Your task to perform on an android device: open device folders in google photos Image 0: 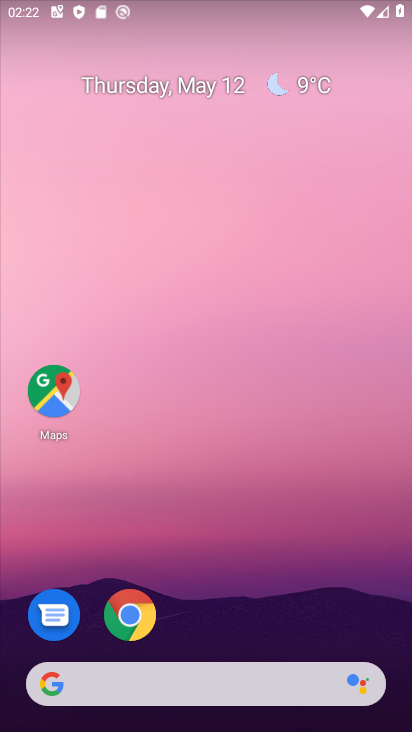
Step 0: drag from (194, 676) to (153, 77)
Your task to perform on an android device: open device folders in google photos Image 1: 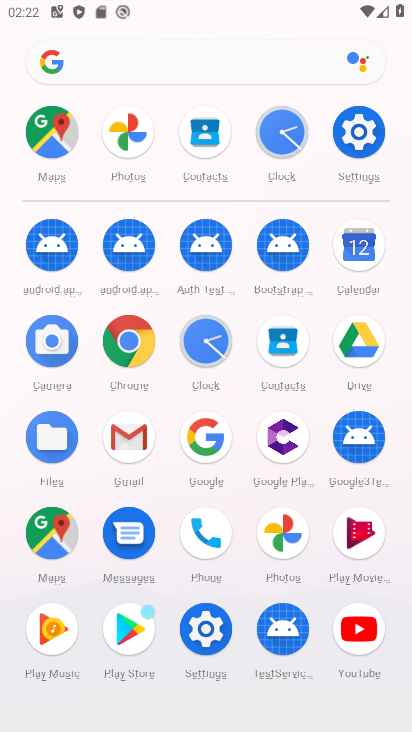
Step 1: click (274, 537)
Your task to perform on an android device: open device folders in google photos Image 2: 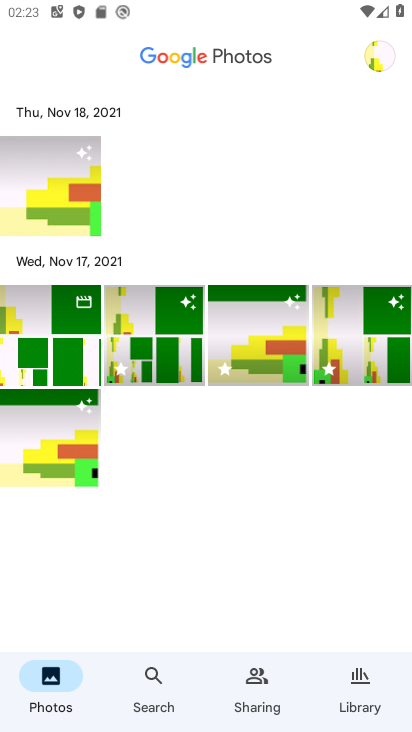
Step 2: task complete